Your task to perform on an android device: Show me the alarms in the clock app Image 0: 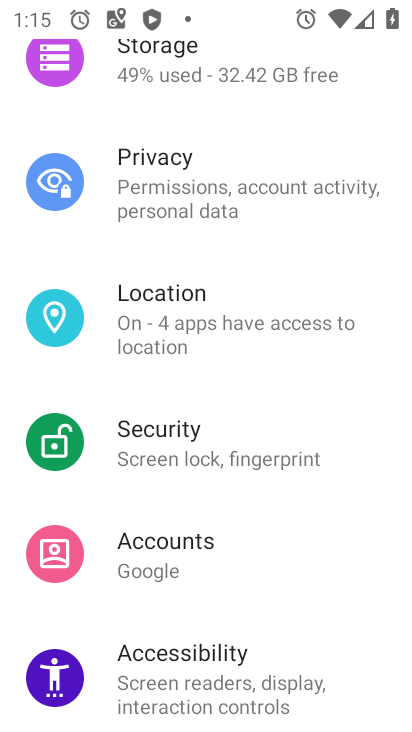
Step 0: press home button
Your task to perform on an android device: Show me the alarms in the clock app Image 1: 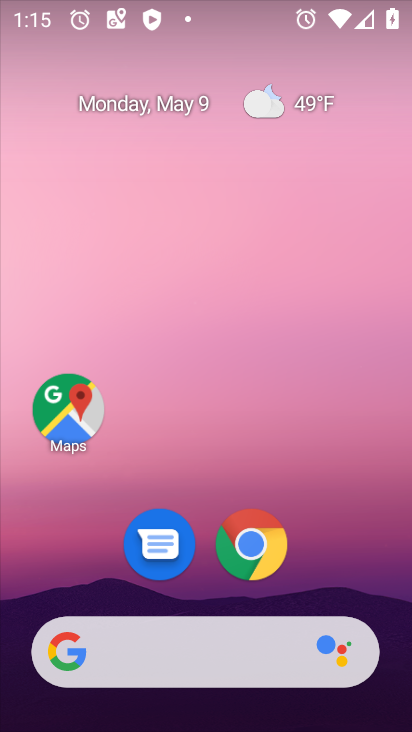
Step 1: drag from (117, 651) to (134, 170)
Your task to perform on an android device: Show me the alarms in the clock app Image 2: 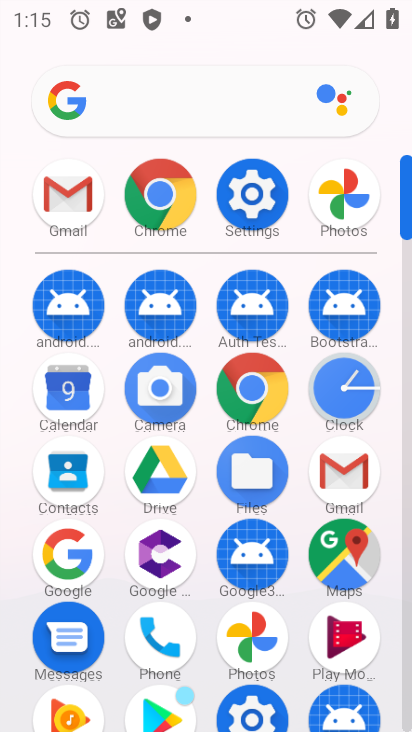
Step 2: click (319, 385)
Your task to perform on an android device: Show me the alarms in the clock app Image 3: 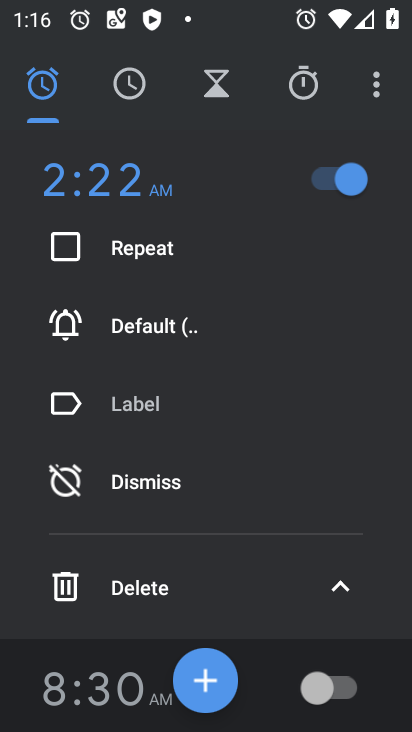
Step 3: task complete